Your task to perform on an android device: Open my contact list Image 0: 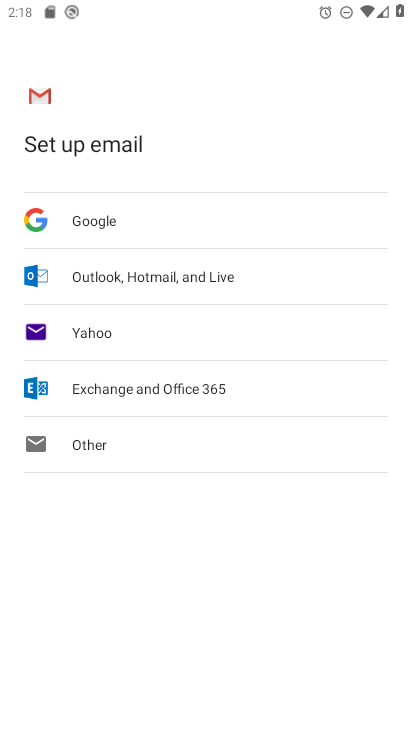
Step 0: press home button
Your task to perform on an android device: Open my contact list Image 1: 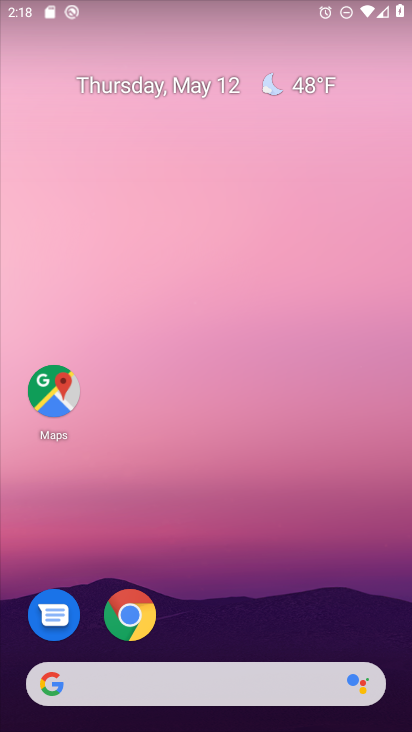
Step 1: drag from (364, 652) to (332, 0)
Your task to perform on an android device: Open my contact list Image 2: 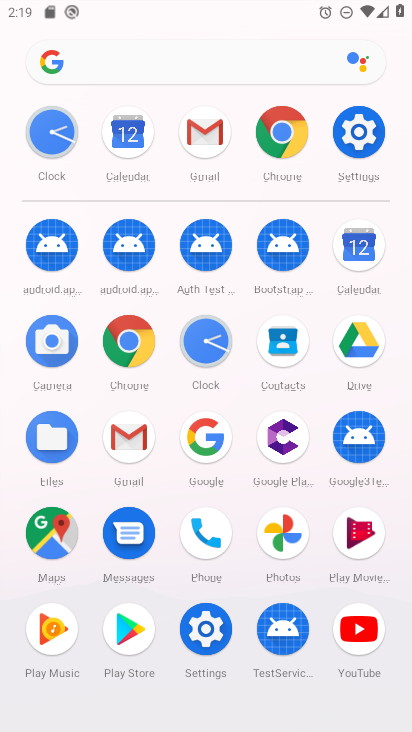
Step 2: click (274, 358)
Your task to perform on an android device: Open my contact list Image 3: 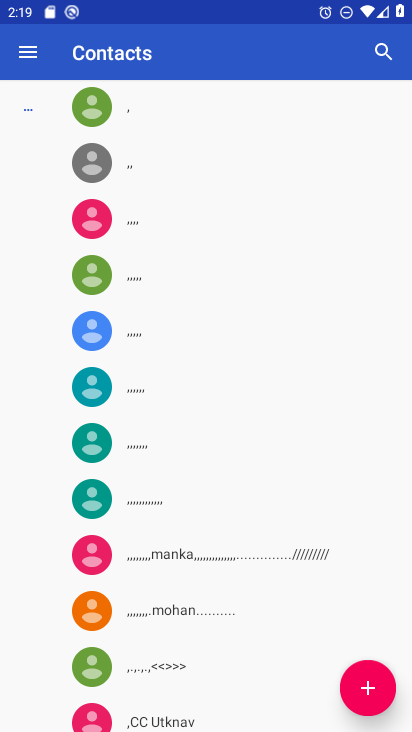
Step 3: click (355, 683)
Your task to perform on an android device: Open my contact list Image 4: 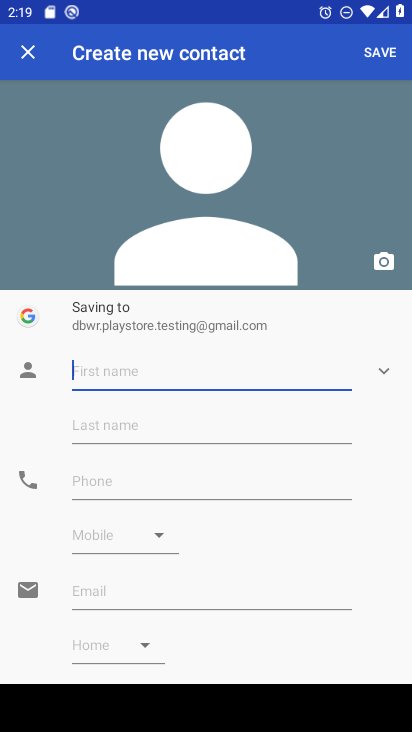
Step 4: click (30, 49)
Your task to perform on an android device: Open my contact list Image 5: 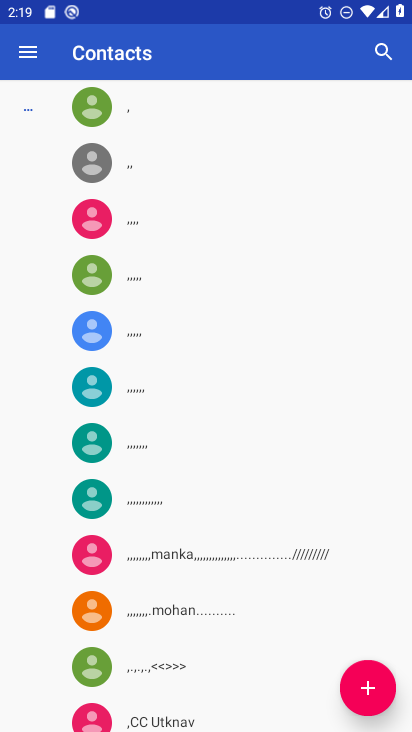
Step 5: task complete